Your task to perform on an android device: turn off sleep mode Image 0: 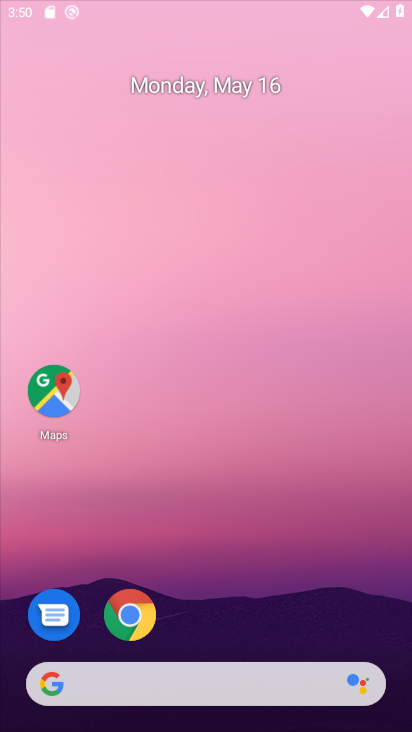
Step 0: click (261, 64)
Your task to perform on an android device: turn off sleep mode Image 1: 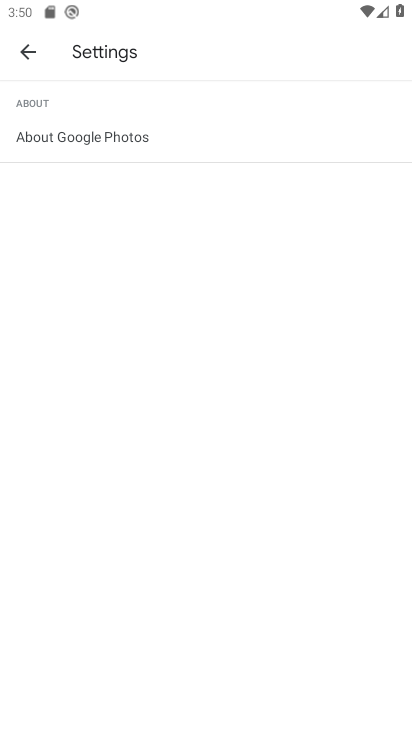
Step 1: press home button
Your task to perform on an android device: turn off sleep mode Image 2: 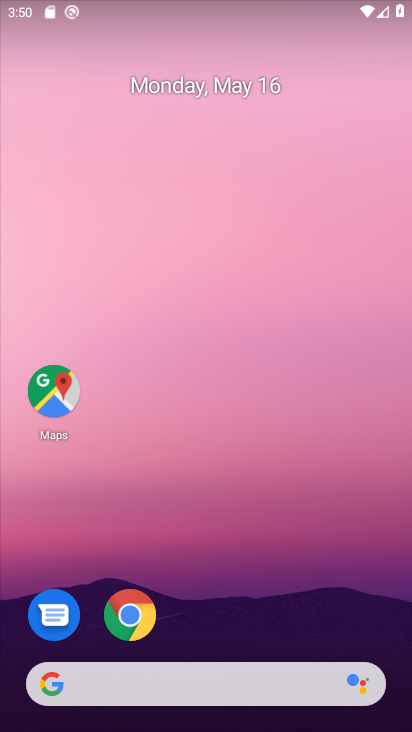
Step 2: drag from (192, 603) to (102, 57)
Your task to perform on an android device: turn off sleep mode Image 3: 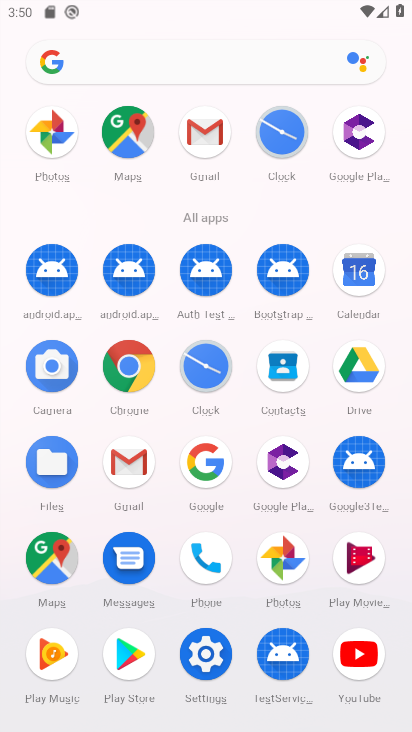
Step 3: drag from (226, 685) to (271, 274)
Your task to perform on an android device: turn off sleep mode Image 4: 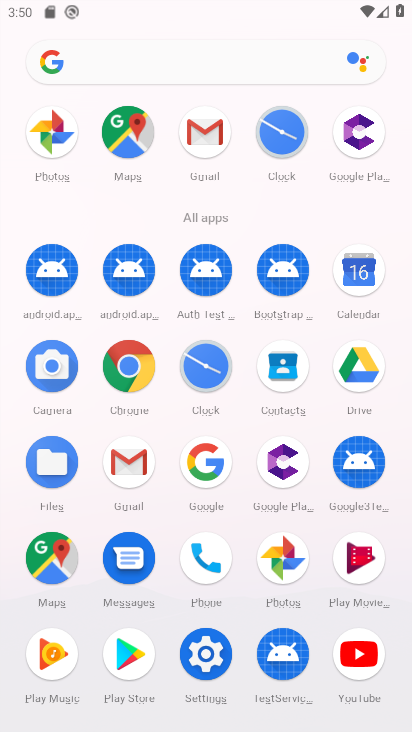
Step 4: click (208, 660)
Your task to perform on an android device: turn off sleep mode Image 5: 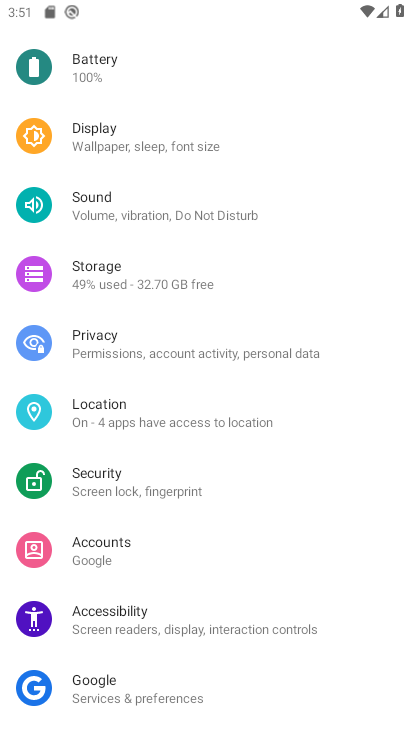
Step 5: task complete